Your task to perform on an android device: open chrome privacy settings Image 0: 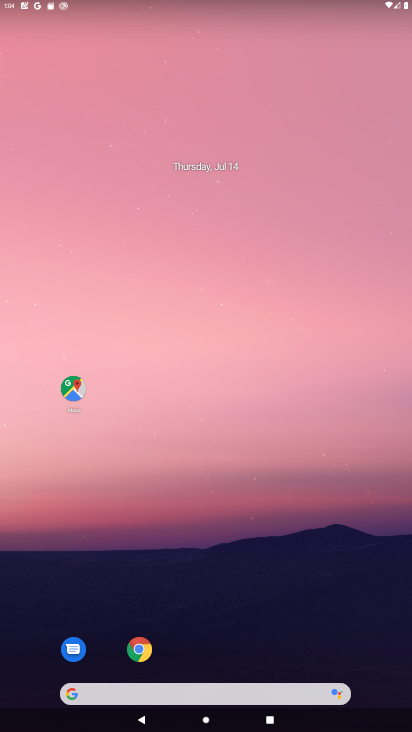
Step 0: drag from (299, 668) to (141, 4)
Your task to perform on an android device: open chrome privacy settings Image 1: 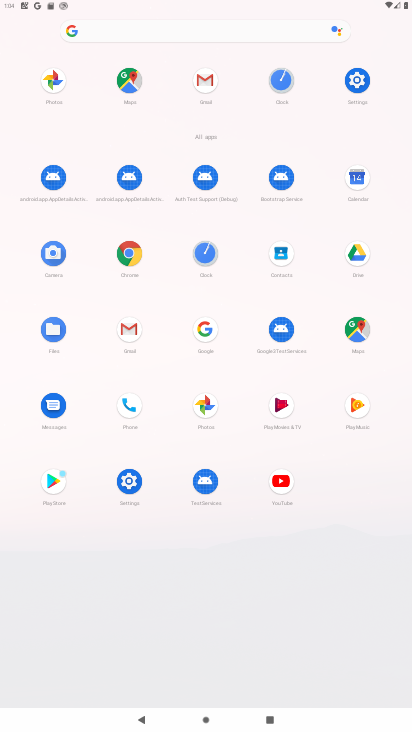
Step 1: click (353, 79)
Your task to perform on an android device: open chrome privacy settings Image 2: 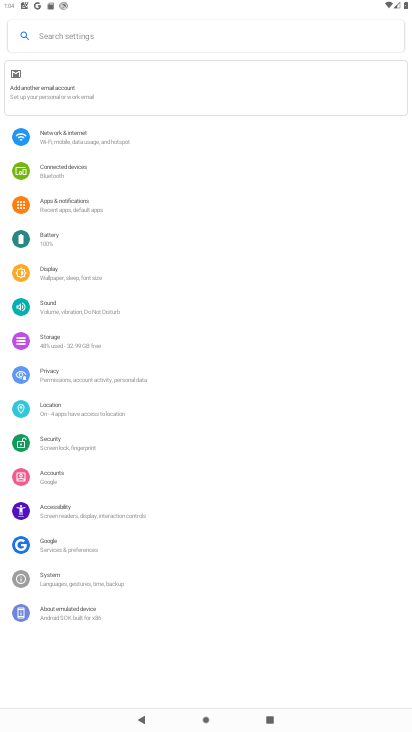
Step 2: click (62, 372)
Your task to perform on an android device: open chrome privacy settings Image 3: 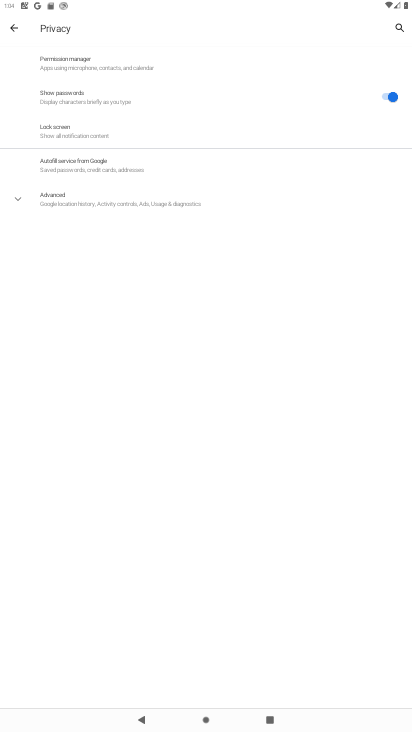
Step 3: task complete